Your task to perform on an android device: Show me the top rated dinnerware on Crate & Barrel Image 0: 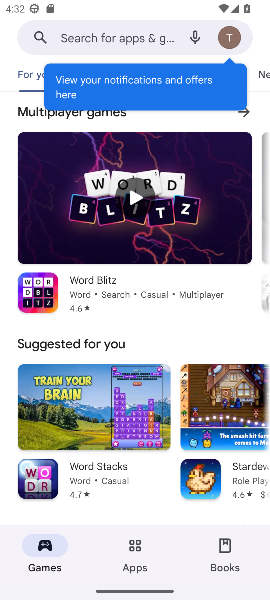
Step 0: press home button
Your task to perform on an android device: Show me the top rated dinnerware on Crate & Barrel Image 1: 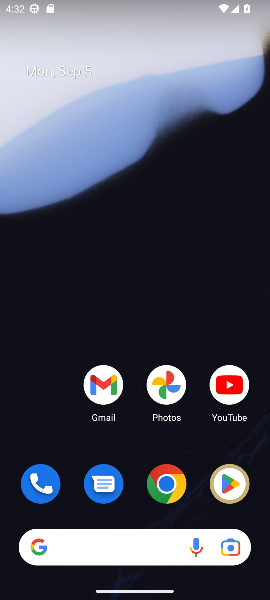
Step 1: click (161, 480)
Your task to perform on an android device: Show me the top rated dinnerware on Crate & Barrel Image 2: 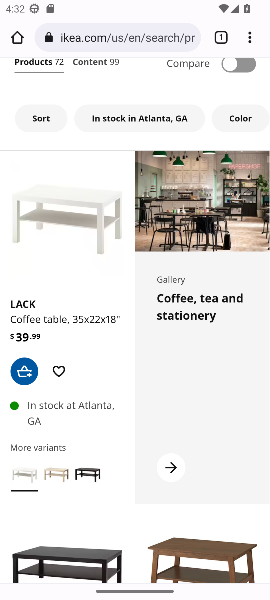
Step 2: click (166, 35)
Your task to perform on an android device: Show me the top rated dinnerware on Crate & Barrel Image 3: 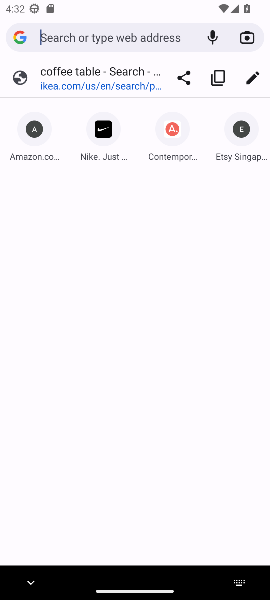
Step 3: type "Crate & Barrel"
Your task to perform on an android device: Show me the top rated dinnerware on Crate & Barrel Image 4: 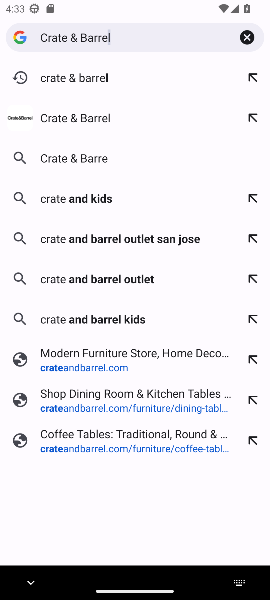
Step 4: press enter
Your task to perform on an android device: Show me the top rated dinnerware on Crate & Barrel Image 5: 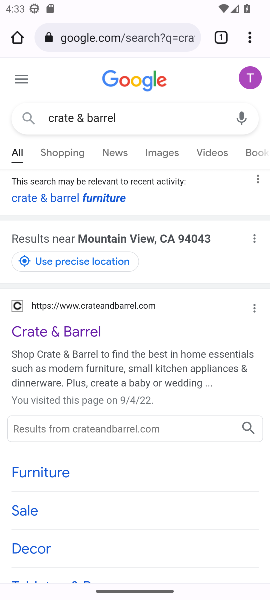
Step 5: click (59, 332)
Your task to perform on an android device: Show me the top rated dinnerware on Crate & Barrel Image 6: 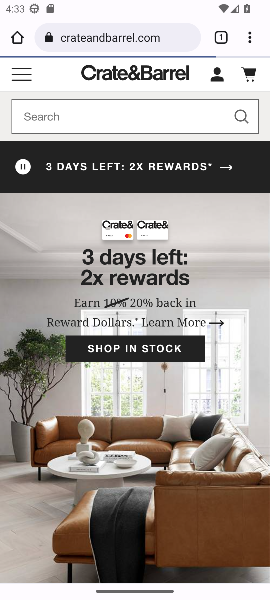
Step 6: click (134, 115)
Your task to perform on an android device: Show me the top rated dinnerware on Crate & Barrel Image 7: 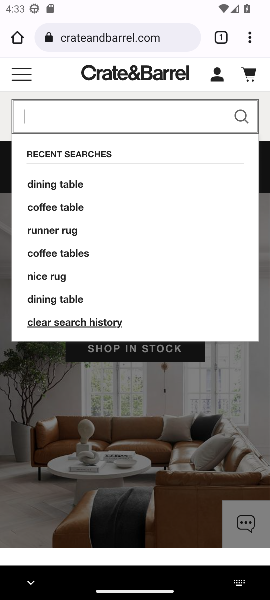
Step 7: type "dinnerware "
Your task to perform on an android device: Show me the top rated dinnerware on Crate & Barrel Image 8: 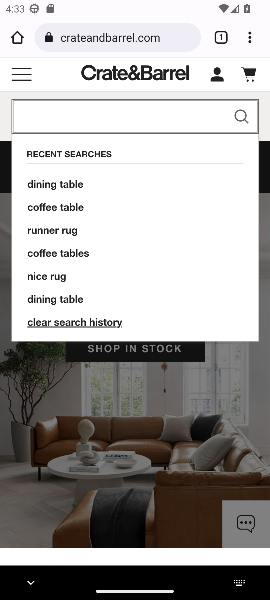
Step 8: press enter
Your task to perform on an android device: Show me the top rated dinnerware on Crate & Barrel Image 9: 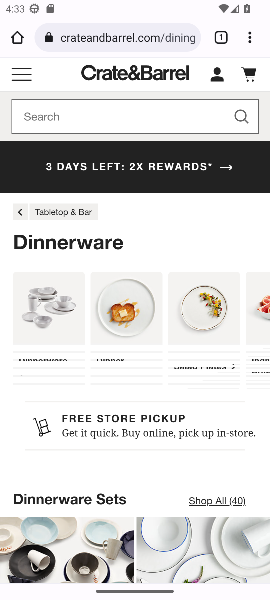
Step 9: task complete